Your task to perform on an android device: Add razer blade to the cart on ebay.com, then select checkout. Image 0: 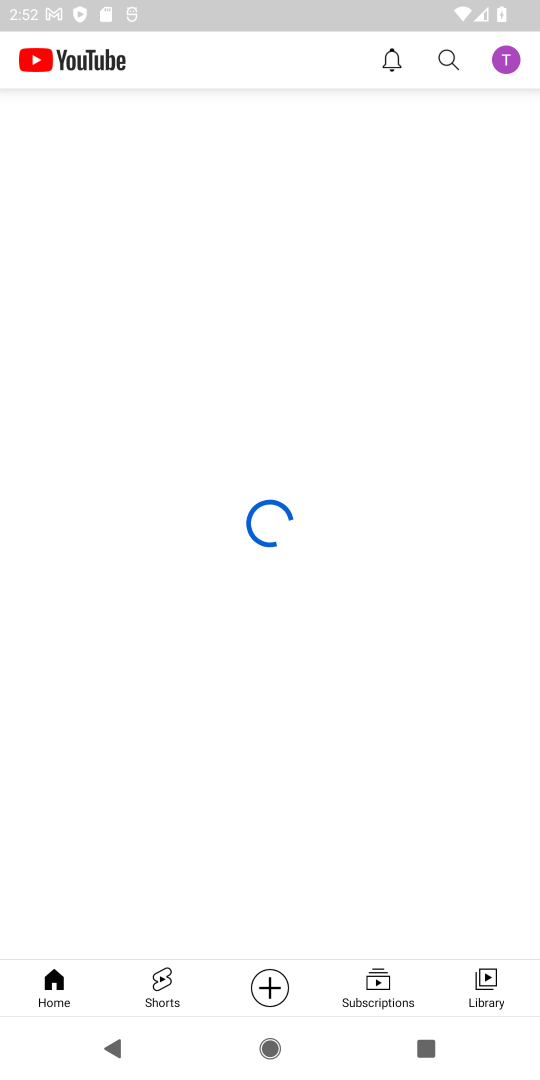
Step 0: press home button
Your task to perform on an android device: Add razer blade to the cart on ebay.com, then select checkout. Image 1: 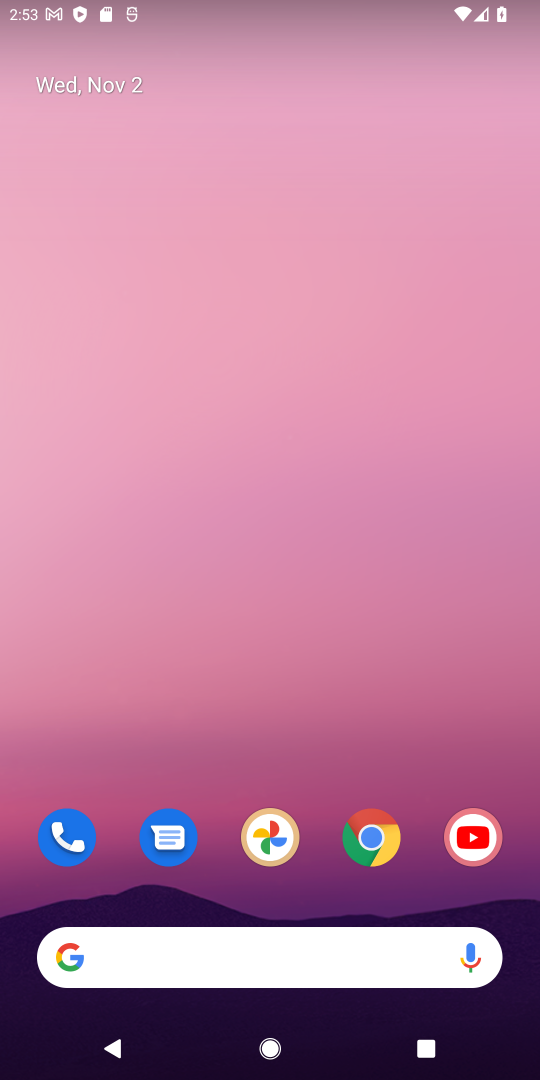
Step 1: click (367, 835)
Your task to perform on an android device: Add razer blade to the cart on ebay.com, then select checkout. Image 2: 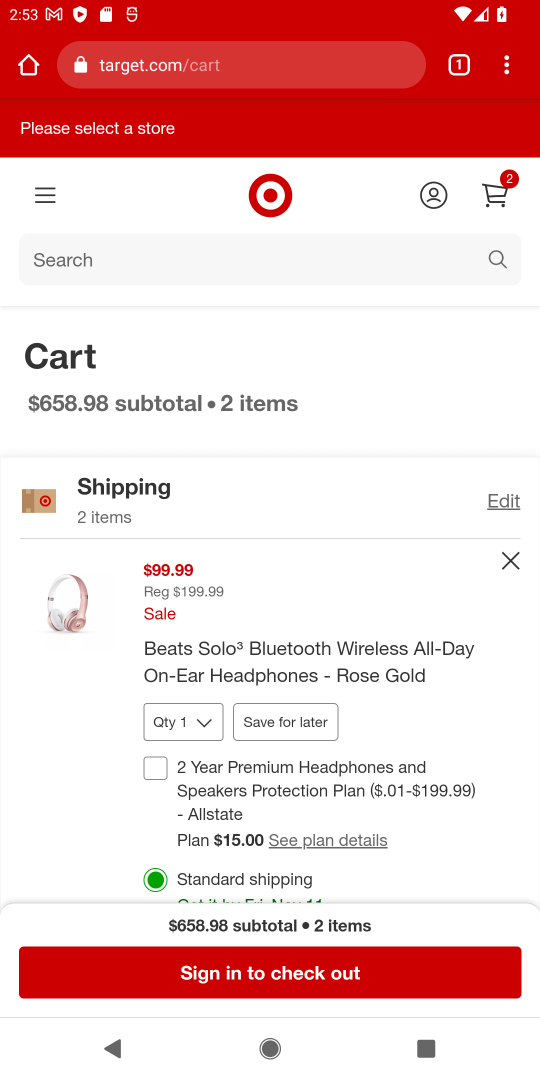
Step 2: click (163, 71)
Your task to perform on an android device: Add razer blade to the cart on ebay.com, then select checkout. Image 3: 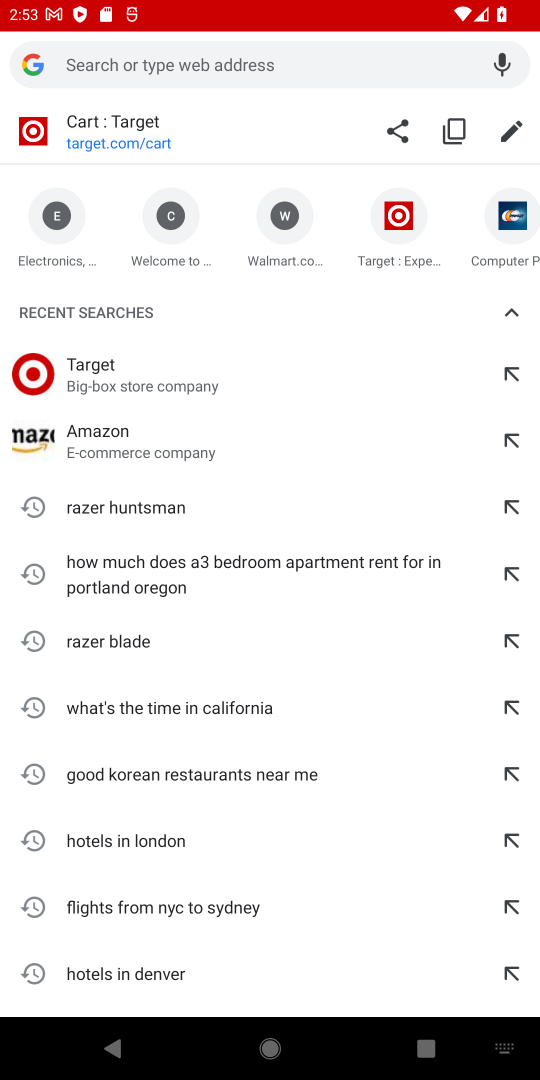
Step 3: type "ebay.com"
Your task to perform on an android device: Add razer blade to the cart on ebay.com, then select checkout. Image 4: 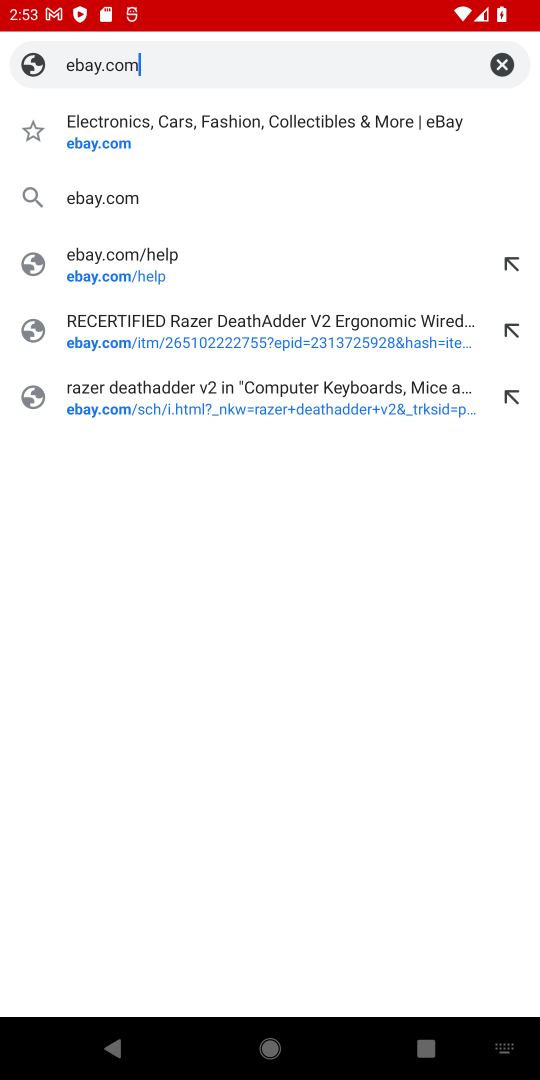
Step 4: click (148, 133)
Your task to perform on an android device: Add razer blade to the cart on ebay.com, then select checkout. Image 5: 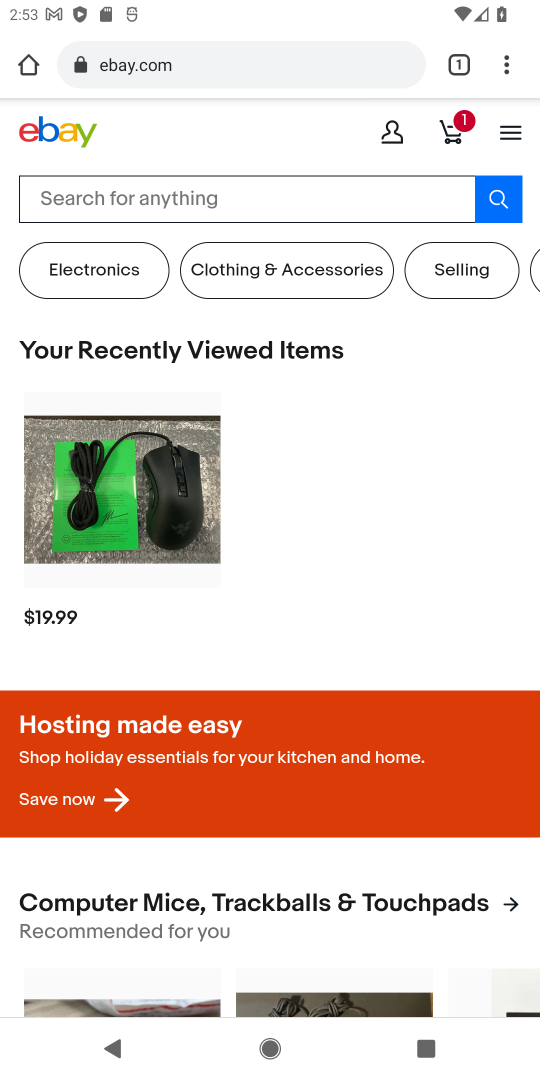
Step 5: click (164, 183)
Your task to perform on an android device: Add razer blade to the cart on ebay.com, then select checkout. Image 6: 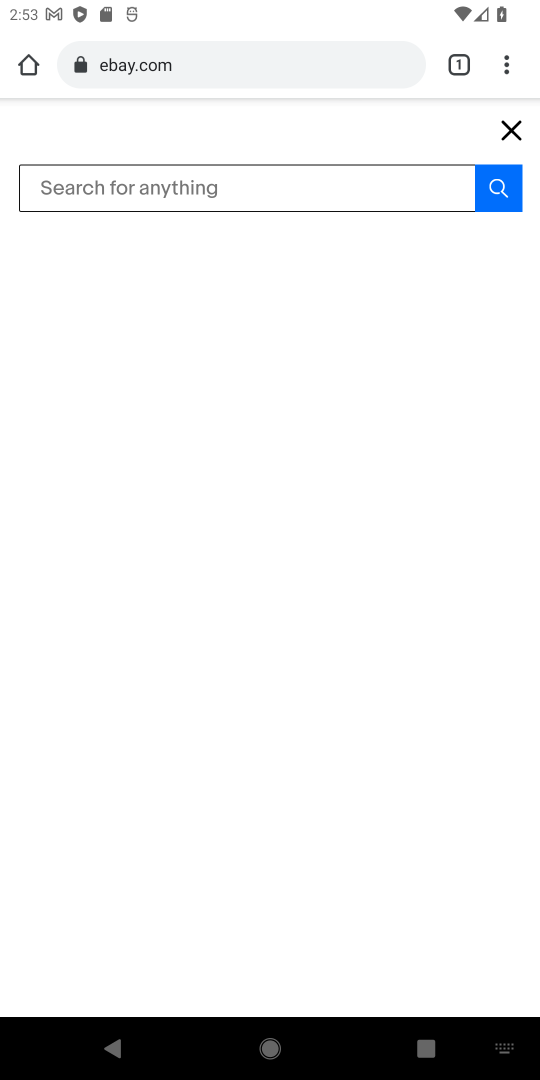
Step 6: type "razer blade"
Your task to perform on an android device: Add razer blade to the cart on ebay.com, then select checkout. Image 7: 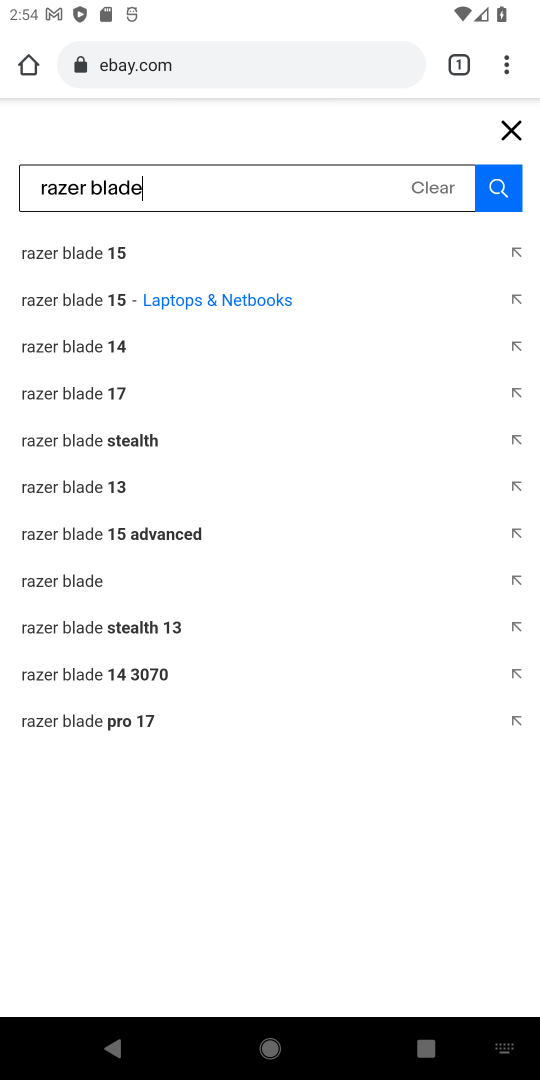
Step 7: click (134, 306)
Your task to perform on an android device: Add razer blade to the cart on ebay.com, then select checkout. Image 8: 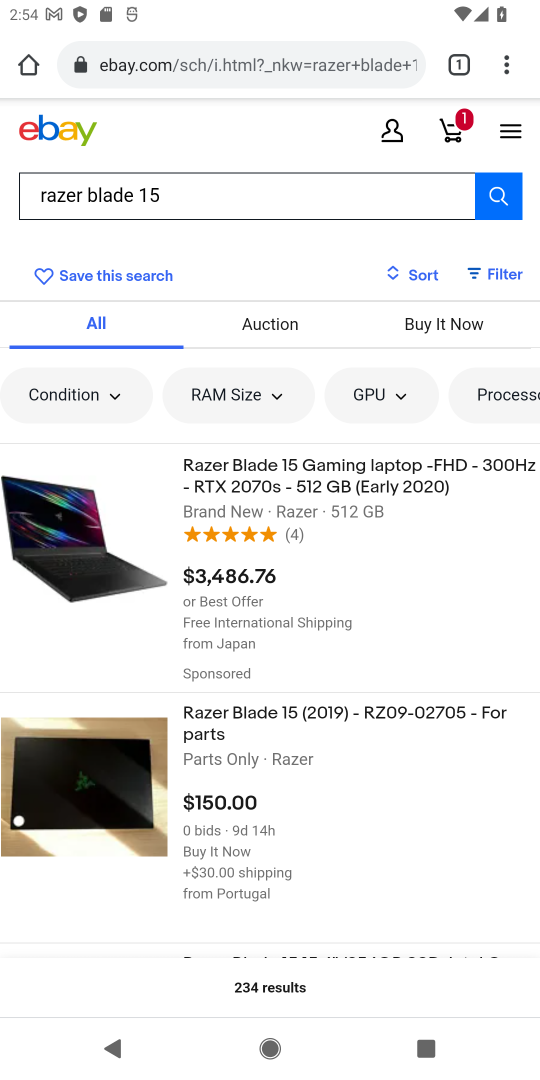
Step 8: click (274, 505)
Your task to perform on an android device: Add razer blade to the cart on ebay.com, then select checkout. Image 9: 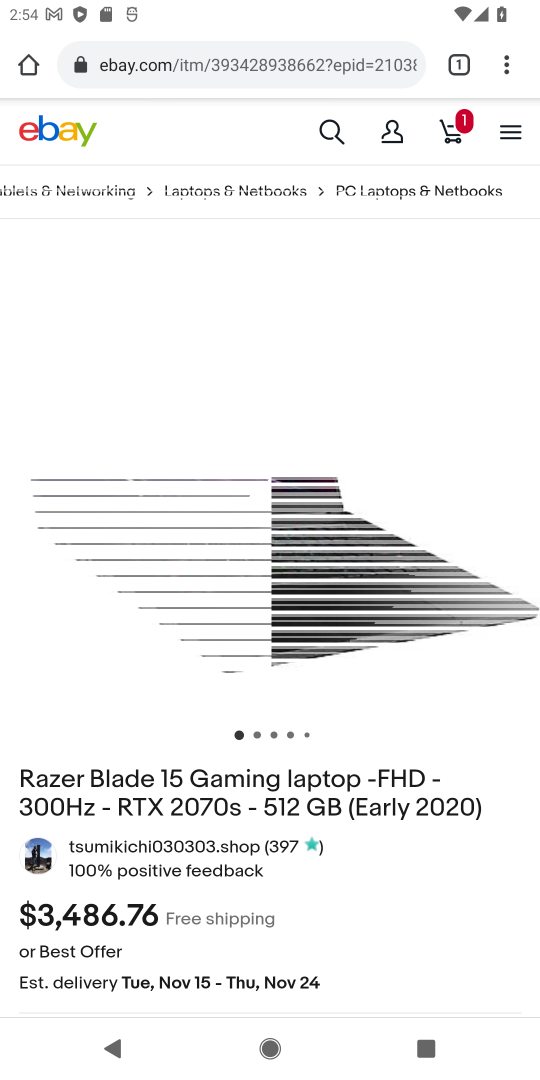
Step 9: drag from (343, 899) to (371, 172)
Your task to perform on an android device: Add razer blade to the cart on ebay.com, then select checkout. Image 10: 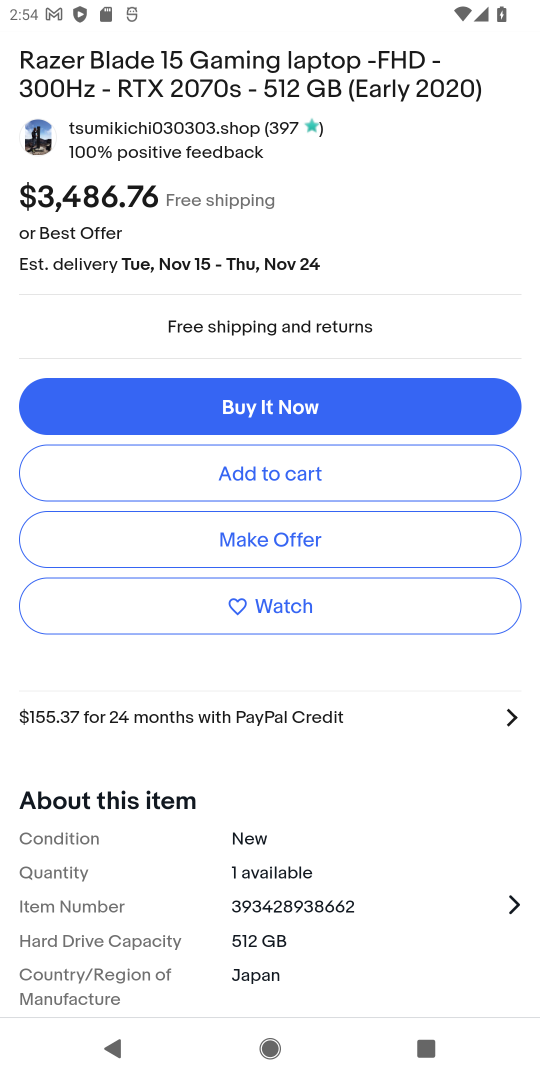
Step 10: click (262, 474)
Your task to perform on an android device: Add razer blade to the cart on ebay.com, then select checkout. Image 11: 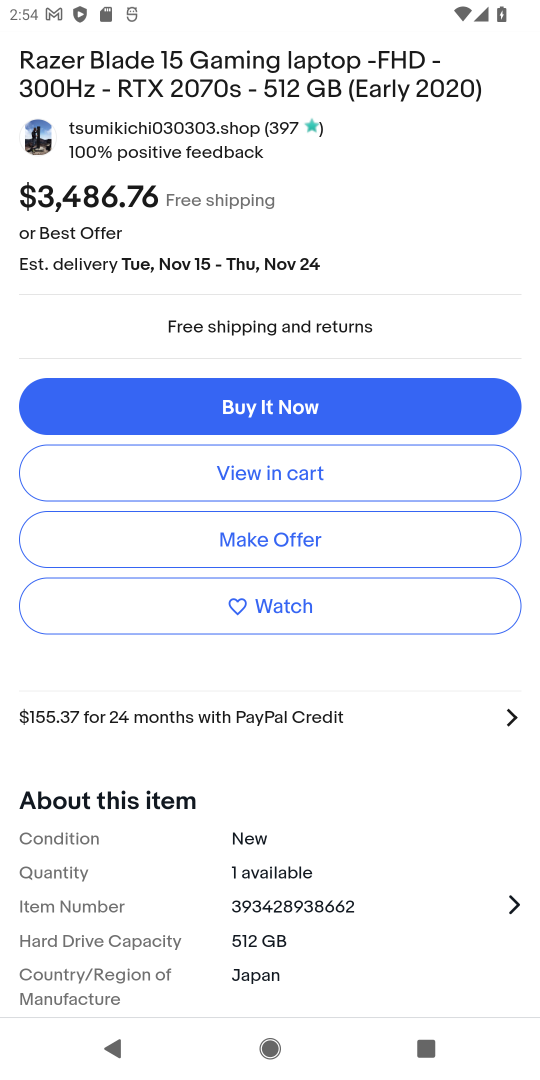
Step 11: click (262, 471)
Your task to perform on an android device: Add razer blade to the cart on ebay.com, then select checkout. Image 12: 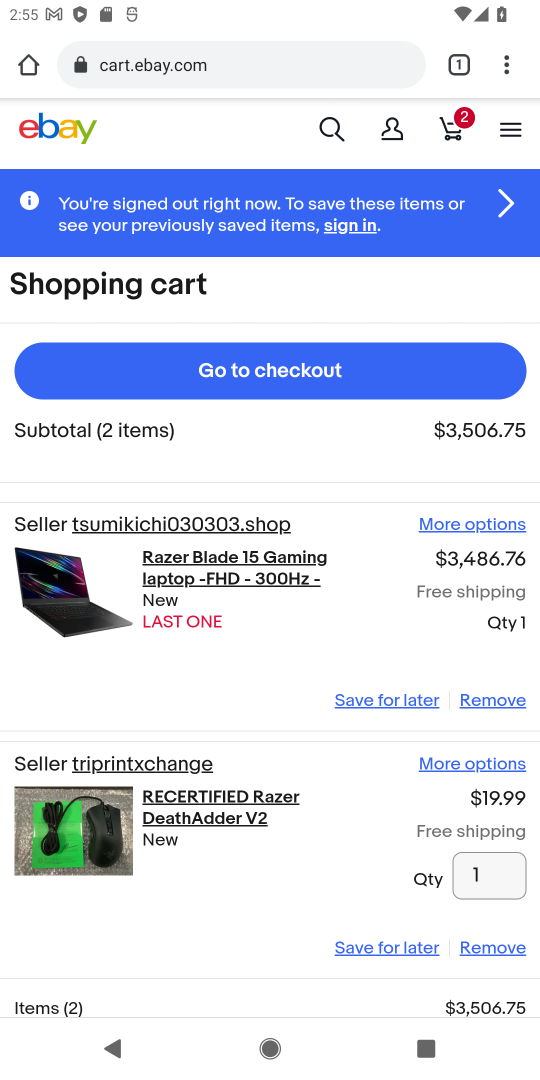
Step 12: click (274, 366)
Your task to perform on an android device: Add razer blade to the cart on ebay.com, then select checkout. Image 13: 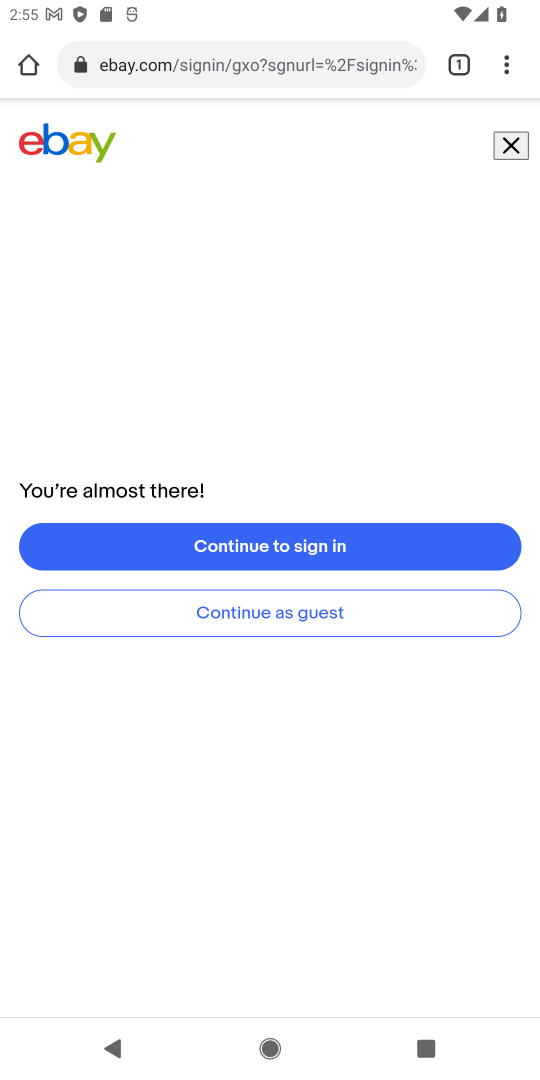
Step 13: task complete